Your task to perform on an android device: Open Maps and search for coffee Image 0: 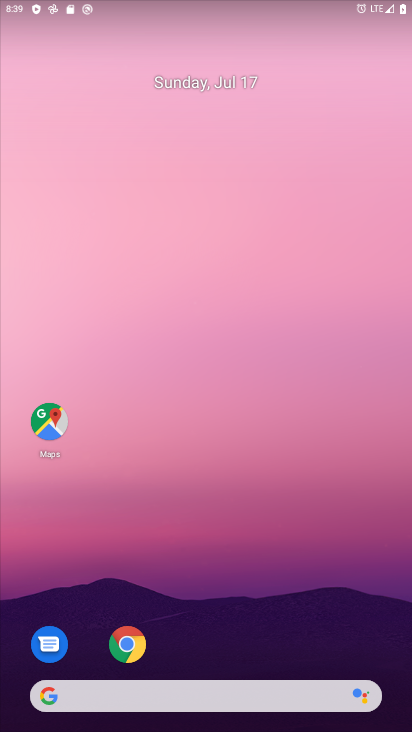
Step 0: drag from (214, 625) to (167, 194)
Your task to perform on an android device: Open Maps and search for coffee Image 1: 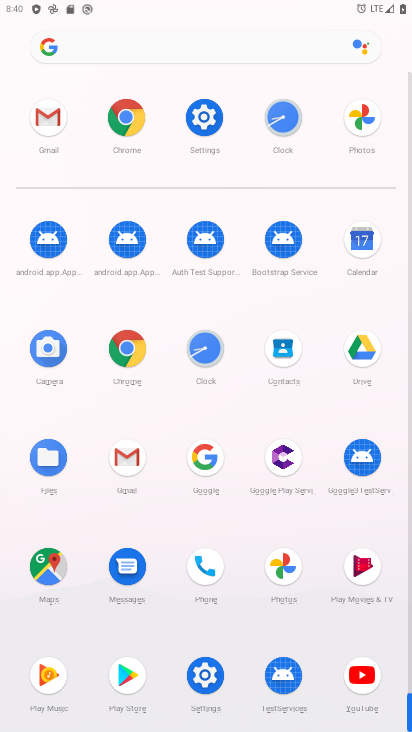
Step 1: click (204, 674)
Your task to perform on an android device: Open Maps and search for coffee Image 2: 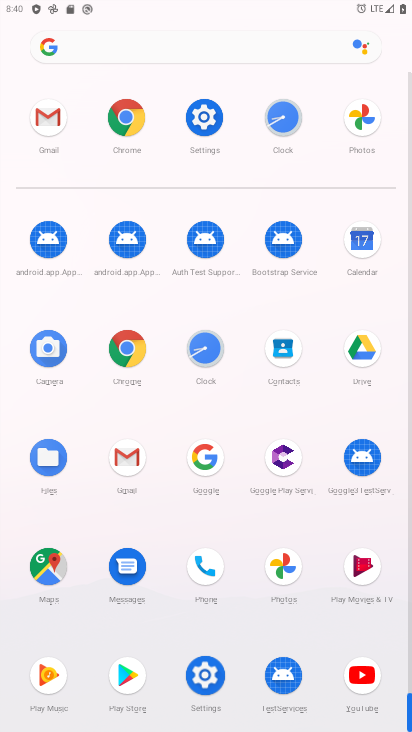
Step 2: click (204, 674)
Your task to perform on an android device: Open Maps and search for coffee Image 3: 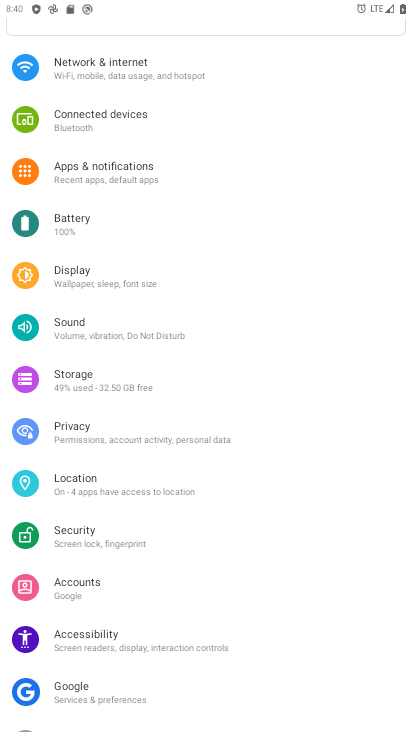
Step 3: press back button
Your task to perform on an android device: Open Maps and search for coffee Image 4: 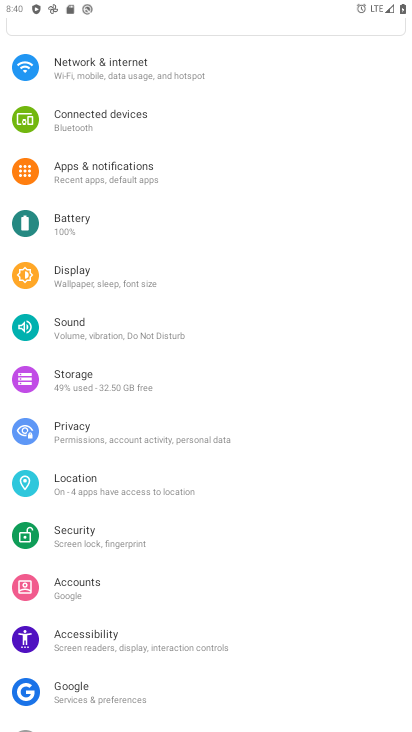
Step 4: press back button
Your task to perform on an android device: Open Maps and search for coffee Image 5: 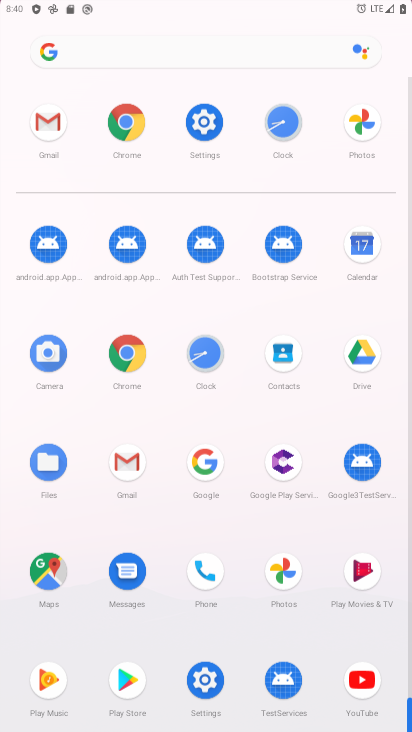
Step 5: press back button
Your task to perform on an android device: Open Maps and search for coffee Image 6: 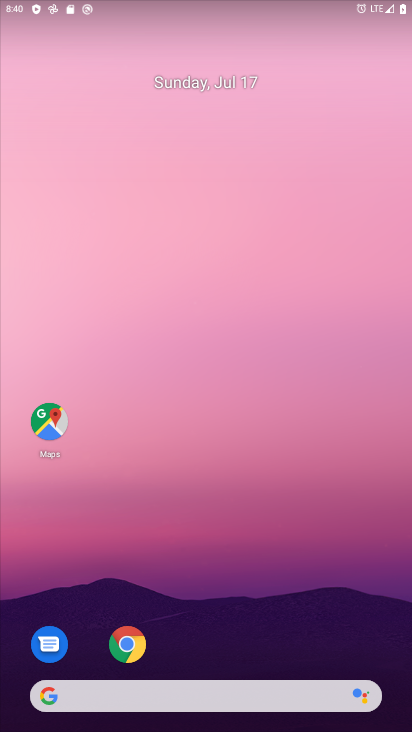
Step 6: drag from (168, 559) to (173, 12)
Your task to perform on an android device: Open Maps and search for coffee Image 7: 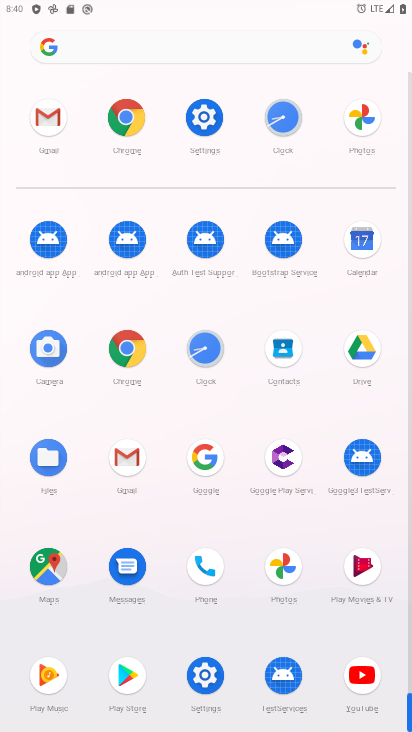
Step 7: click (56, 569)
Your task to perform on an android device: Open Maps and search for coffee Image 8: 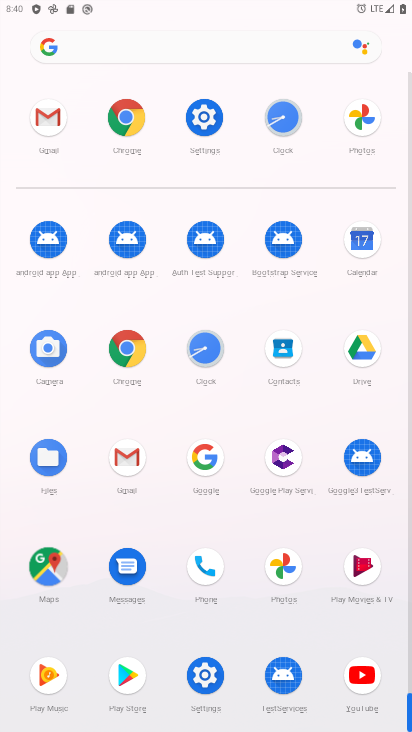
Step 8: click (54, 574)
Your task to perform on an android device: Open Maps and search for coffee Image 9: 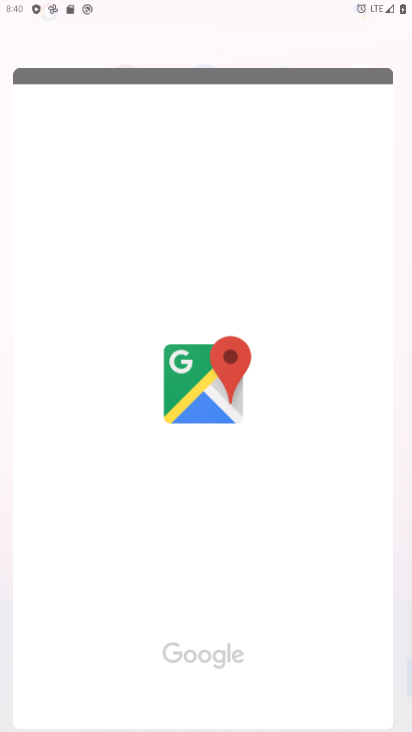
Step 9: click (55, 575)
Your task to perform on an android device: Open Maps and search for coffee Image 10: 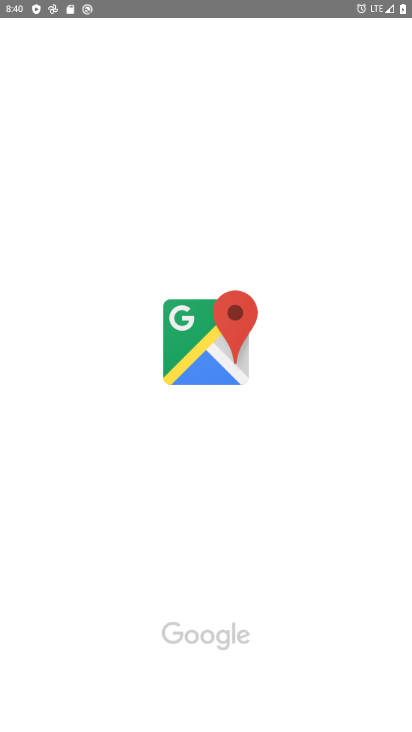
Step 10: click (55, 575)
Your task to perform on an android device: Open Maps and search for coffee Image 11: 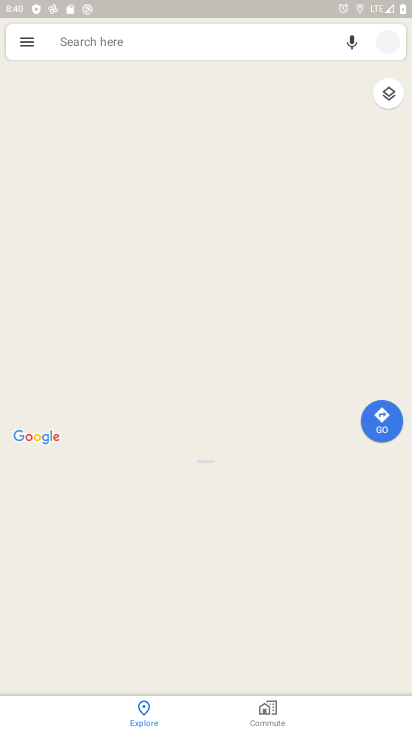
Step 11: click (87, 39)
Your task to perform on an android device: Open Maps and search for coffee Image 12: 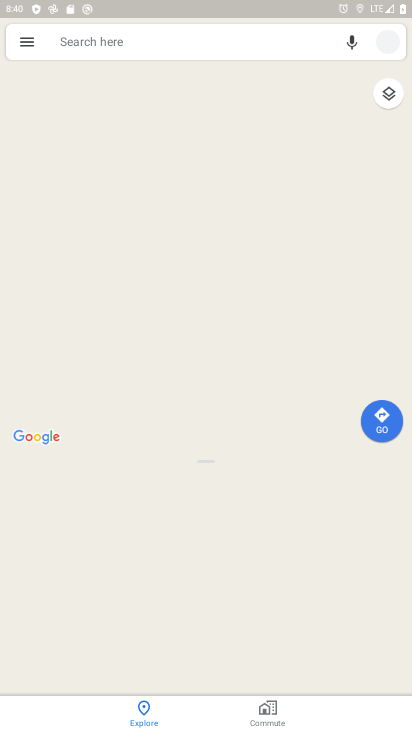
Step 12: click (87, 39)
Your task to perform on an android device: Open Maps and search for coffee Image 13: 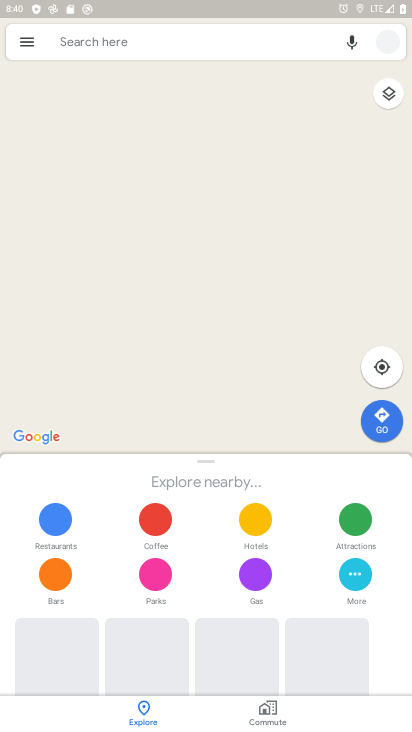
Step 13: click (87, 39)
Your task to perform on an android device: Open Maps and search for coffee Image 14: 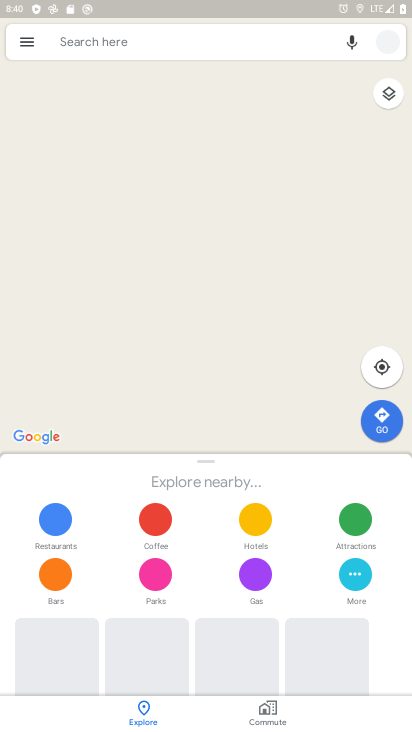
Step 14: click (79, 45)
Your task to perform on an android device: Open Maps and search for coffee Image 15: 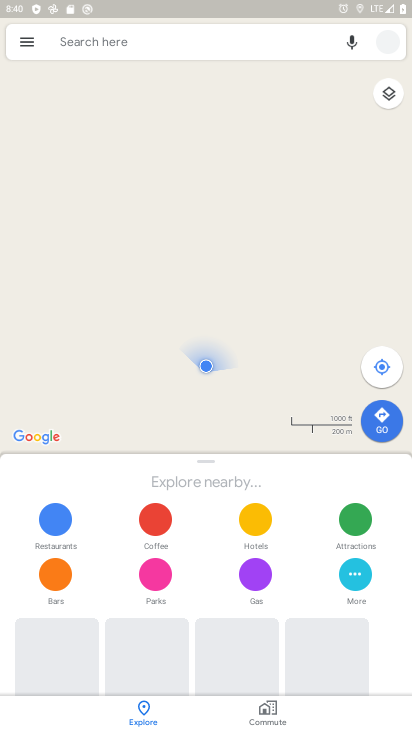
Step 15: click (61, 41)
Your task to perform on an android device: Open Maps and search for coffee Image 16: 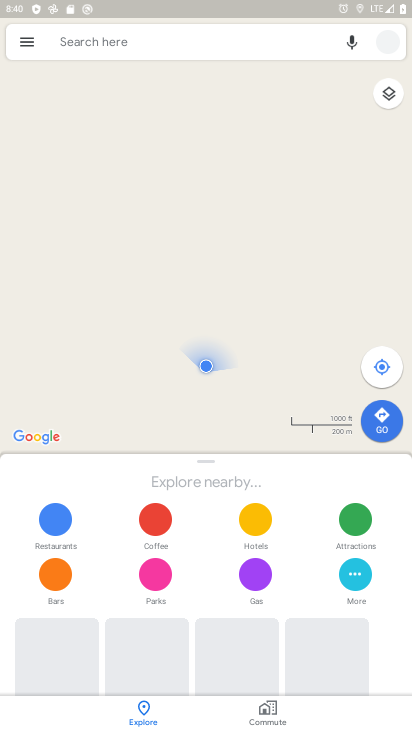
Step 16: click (61, 41)
Your task to perform on an android device: Open Maps and search for coffee Image 17: 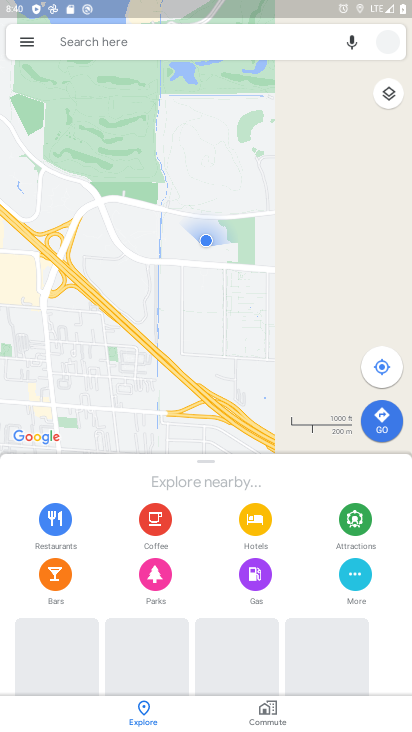
Step 17: click (61, 41)
Your task to perform on an android device: Open Maps and search for coffee Image 18: 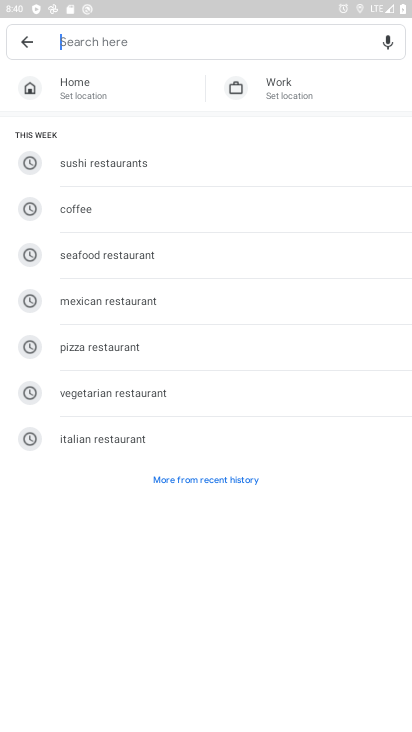
Step 18: click (106, 213)
Your task to perform on an android device: Open Maps and search for coffee Image 19: 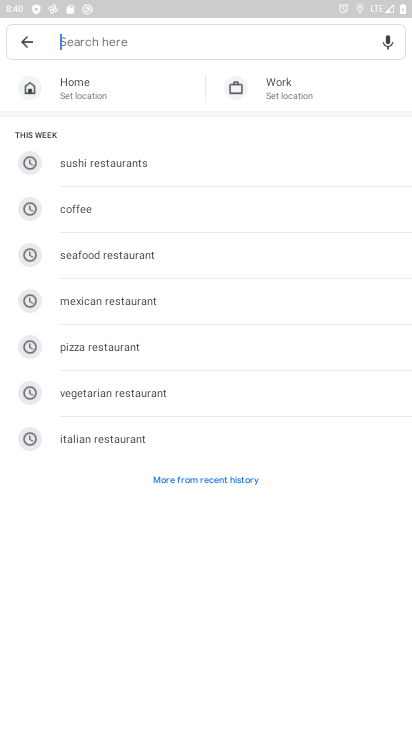
Step 19: click (106, 213)
Your task to perform on an android device: Open Maps and search for coffee Image 20: 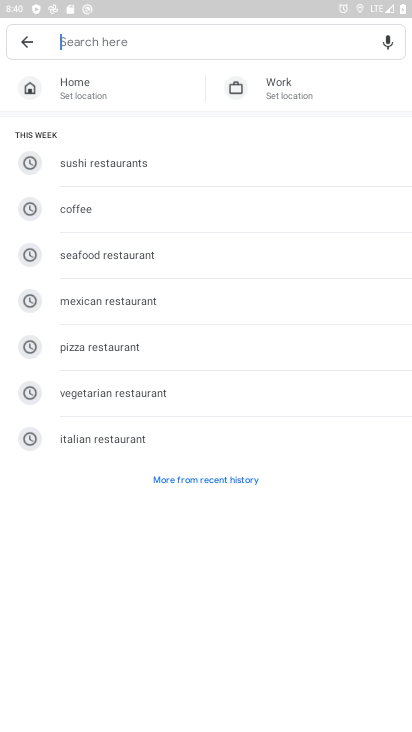
Step 20: click (106, 213)
Your task to perform on an android device: Open Maps and search for coffee Image 21: 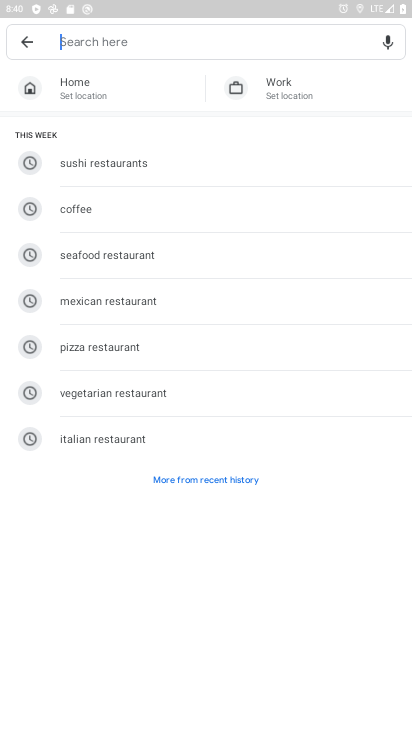
Step 21: click (106, 213)
Your task to perform on an android device: Open Maps and search for coffee Image 22: 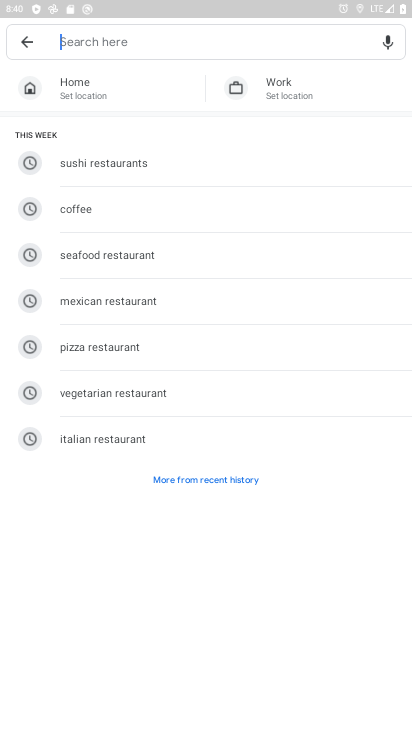
Step 22: click (113, 213)
Your task to perform on an android device: Open Maps and search for coffee Image 23: 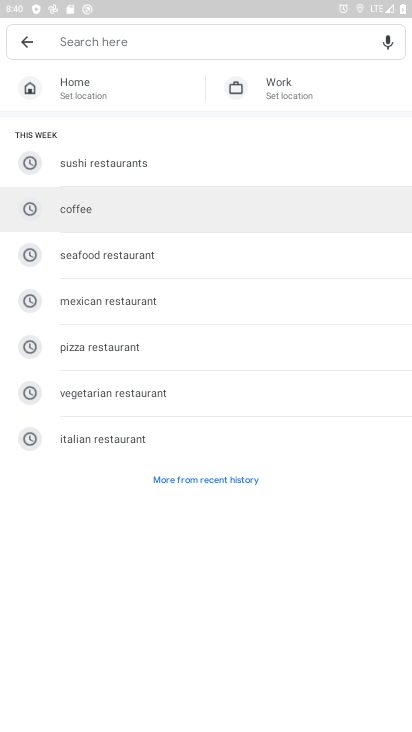
Step 23: click (69, 211)
Your task to perform on an android device: Open Maps and search for coffee Image 24: 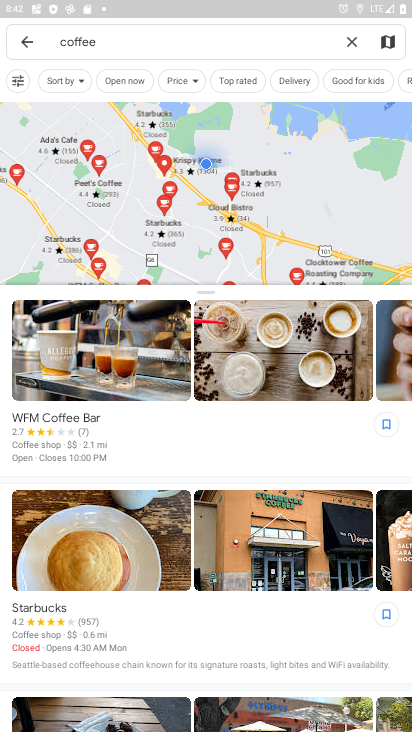
Step 24: task complete